Your task to perform on an android device: set default search engine in the chrome app Image 0: 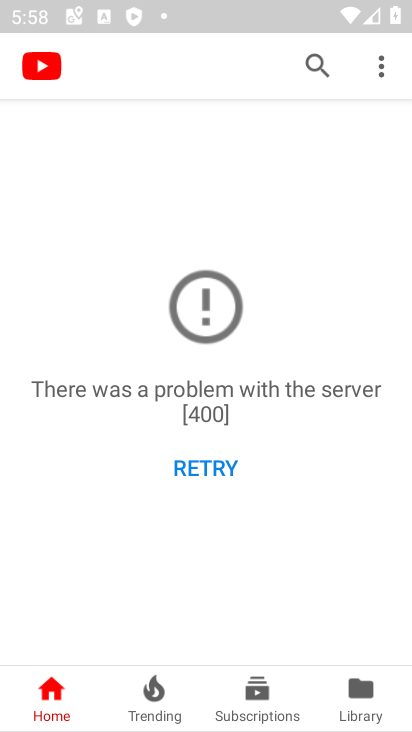
Step 0: press home button
Your task to perform on an android device: set default search engine in the chrome app Image 1: 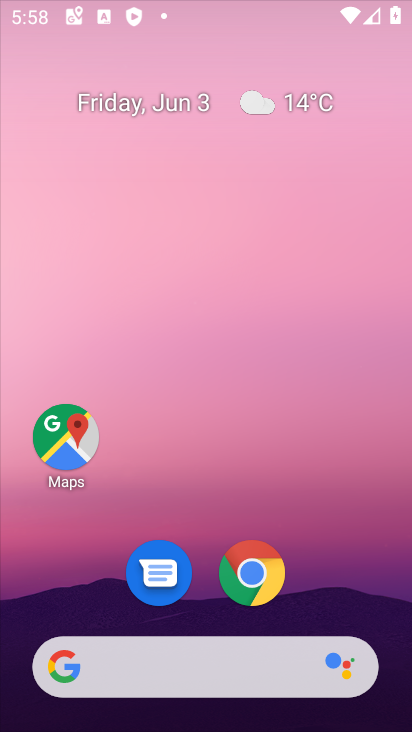
Step 1: drag from (235, 580) to (264, 4)
Your task to perform on an android device: set default search engine in the chrome app Image 2: 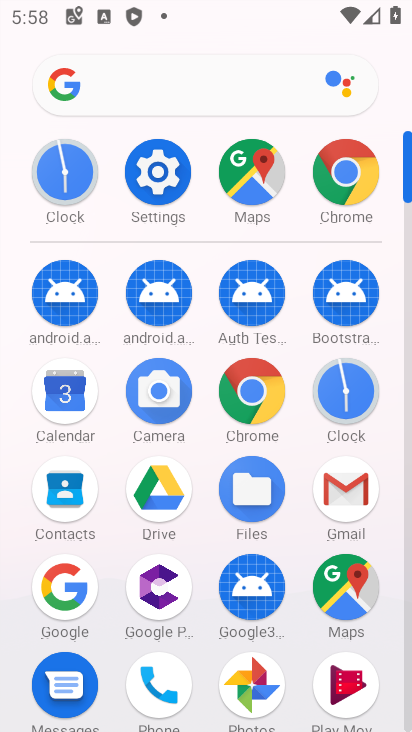
Step 2: click (266, 395)
Your task to perform on an android device: set default search engine in the chrome app Image 3: 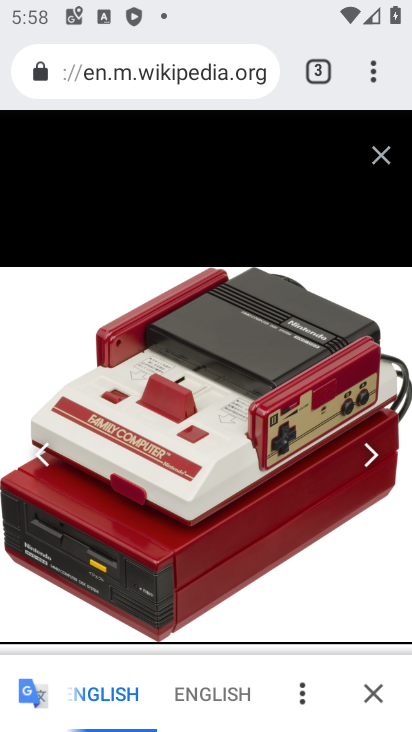
Step 3: drag from (381, 65) to (164, 580)
Your task to perform on an android device: set default search engine in the chrome app Image 4: 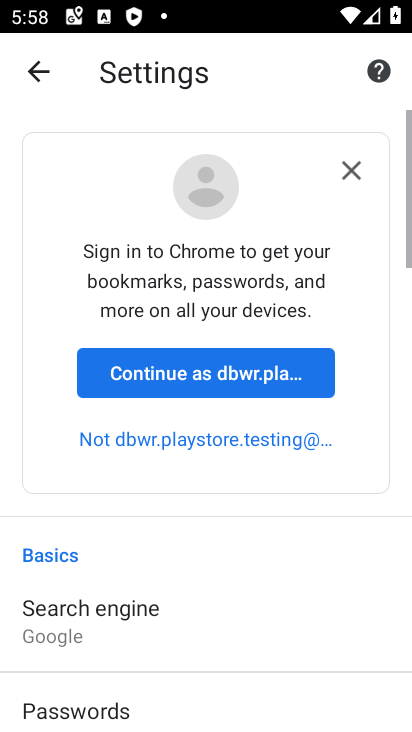
Step 4: drag from (90, 589) to (167, 12)
Your task to perform on an android device: set default search engine in the chrome app Image 5: 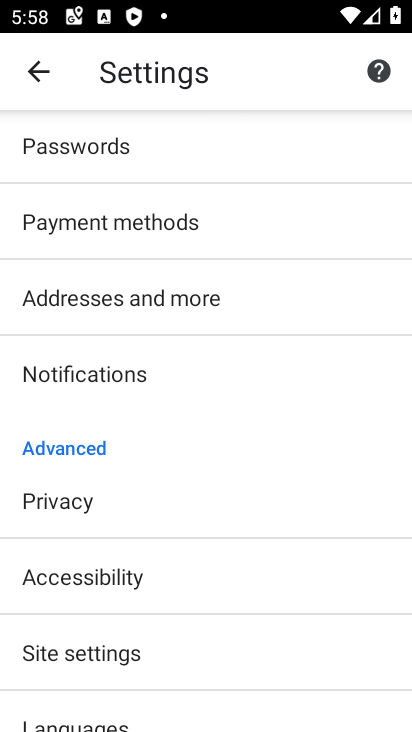
Step 5: drag from (140, 176) to (189, 611)
Your task to perform on an android device: set default search engine in the chrome app Image 6: 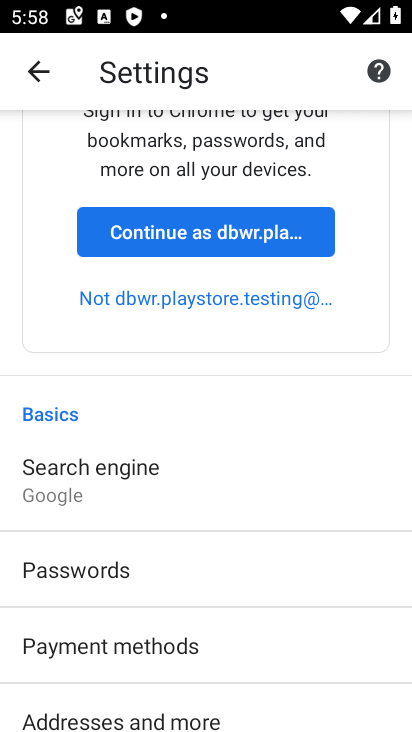
Step 6: click (112, 476)
Your task to perform on an android device: set default search engine in the chrome app Image 7: 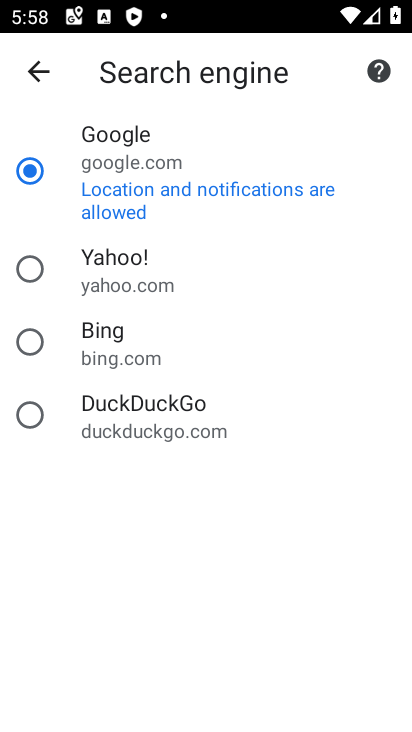
Step 7: task complete